Your task to perform on an android device: turn smart compose on in the gmail app Image 0: 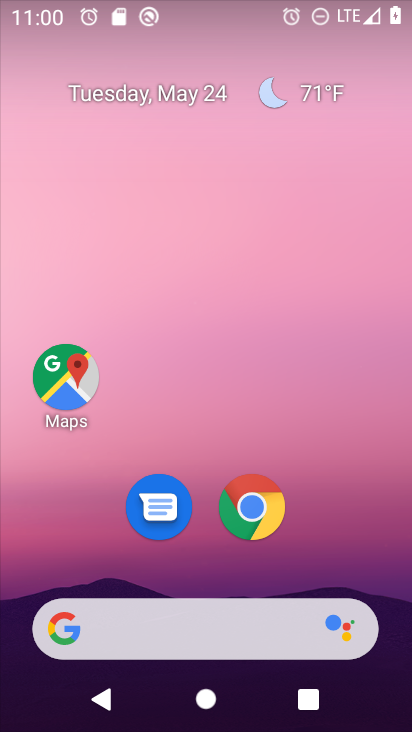
Step 0: drag from (239, 726) to (179, 73)
Your task to perform on an android device: turn smart compose on in the gmail app Image 1: 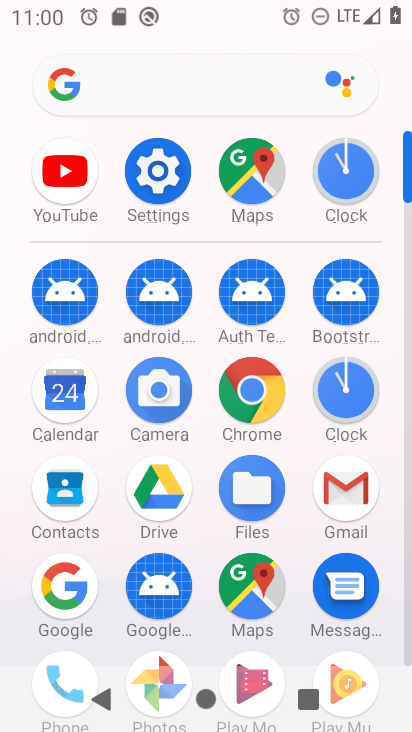
Step 1: click (346, 479)
Your task to perform on an android device: turn smart compose on in the gmail app Image 2: 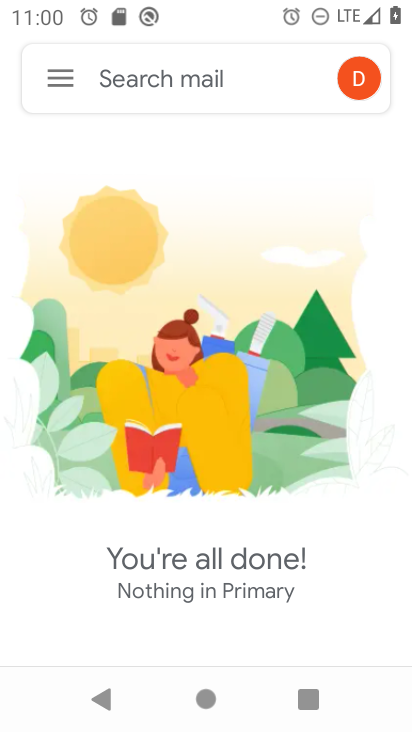
Step 2: click (58, 80)
Your task to perform on an android device: turn smart compose on in the gmail app Image 3: 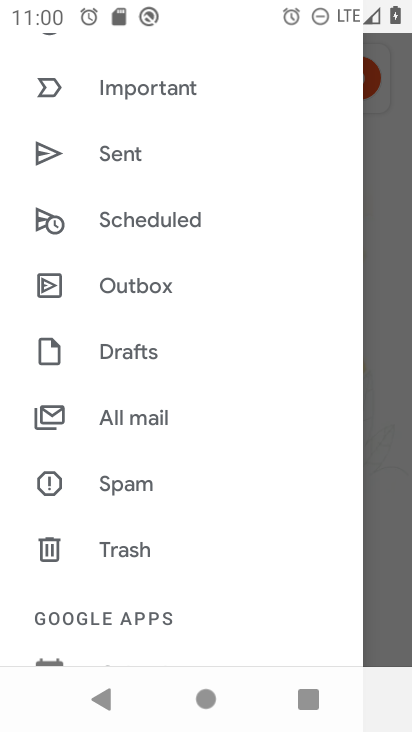
Step 3: drag from (185, 650) to (179, 217)
Your task to perform on an android device: turn smart compose on in the gmail app Image 4: 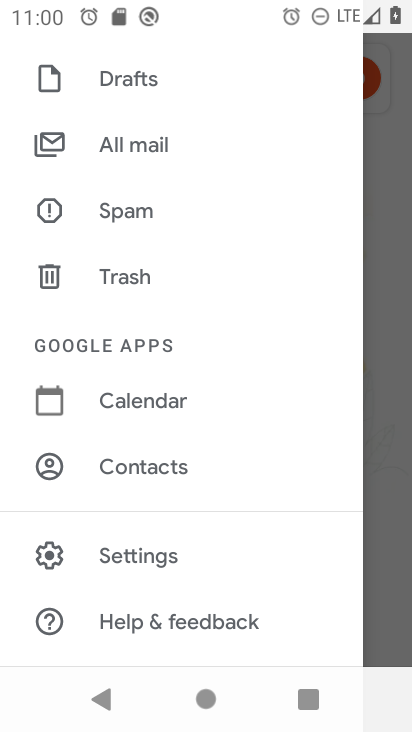
Step 4: click (142, 557)
Your task to perform on an android device: turn smart compose on in the gmail app Image 5: 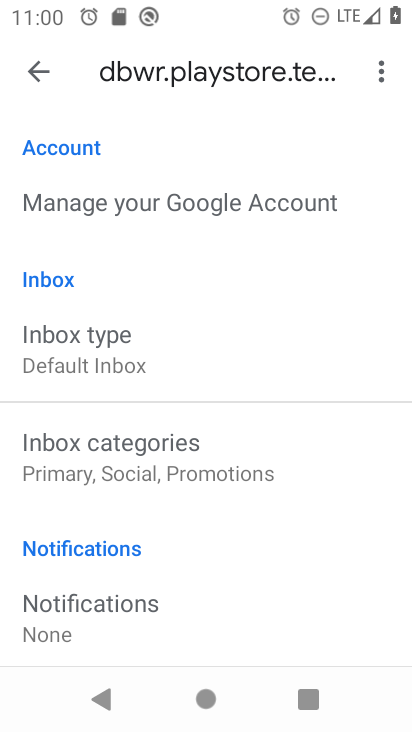
Step 5: task complete